Your task to perform on an android device: turn off picture-in-picture Image 0: 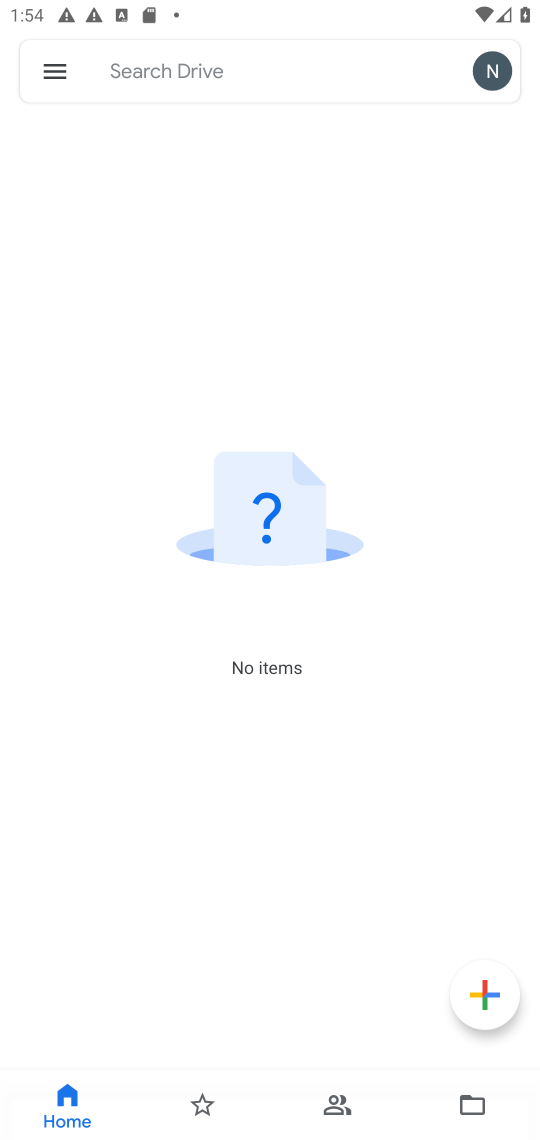
Step 0: press home button
Your task to perform on an android device: turn off picture-in-picture Image 1: 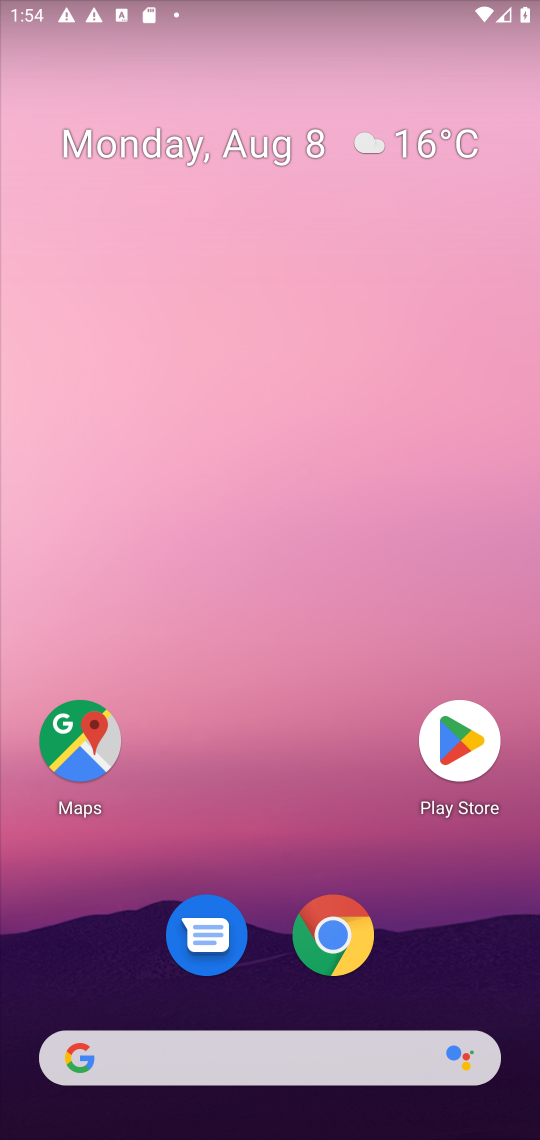
Step 1: drag from (322, 502) to (345, 44)
Your task to perform on an android device: turn off picture-in-picture Image 2: 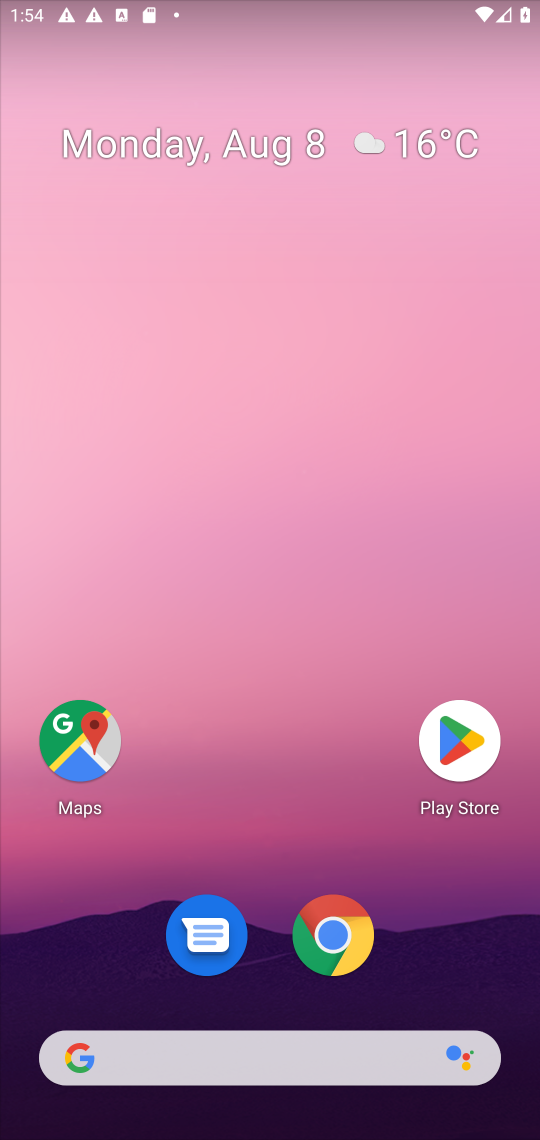
Step 2: drag from (260, 934) to (309, 31)
Your task to perform on an android device: turn off picture-in-picture Image 3: 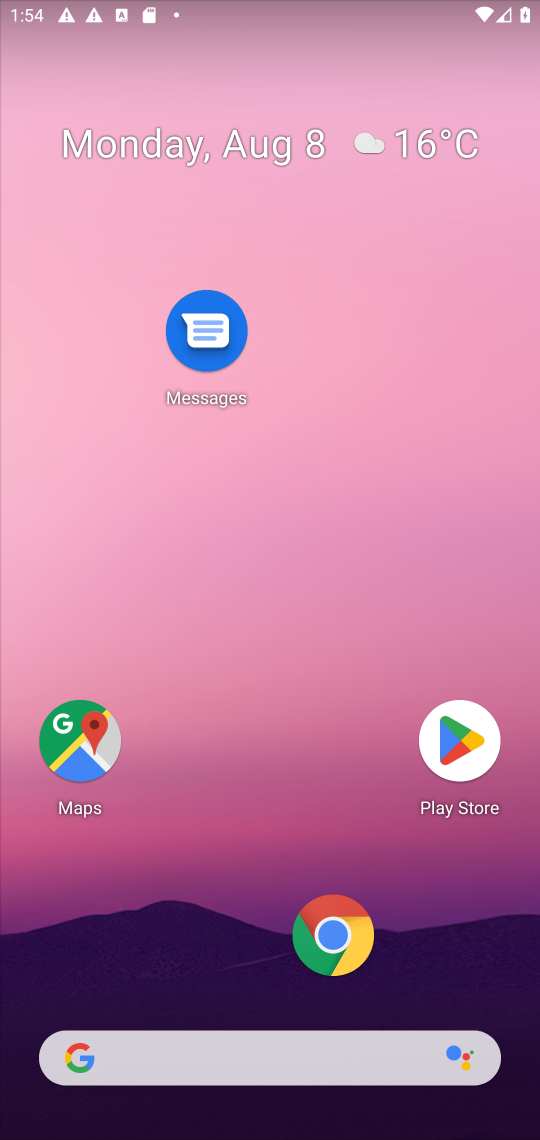
Step 3: drag from (308, 1039) to (397, 4)
Your task to perform on an android device: turn off picture-in-picture Image 4: 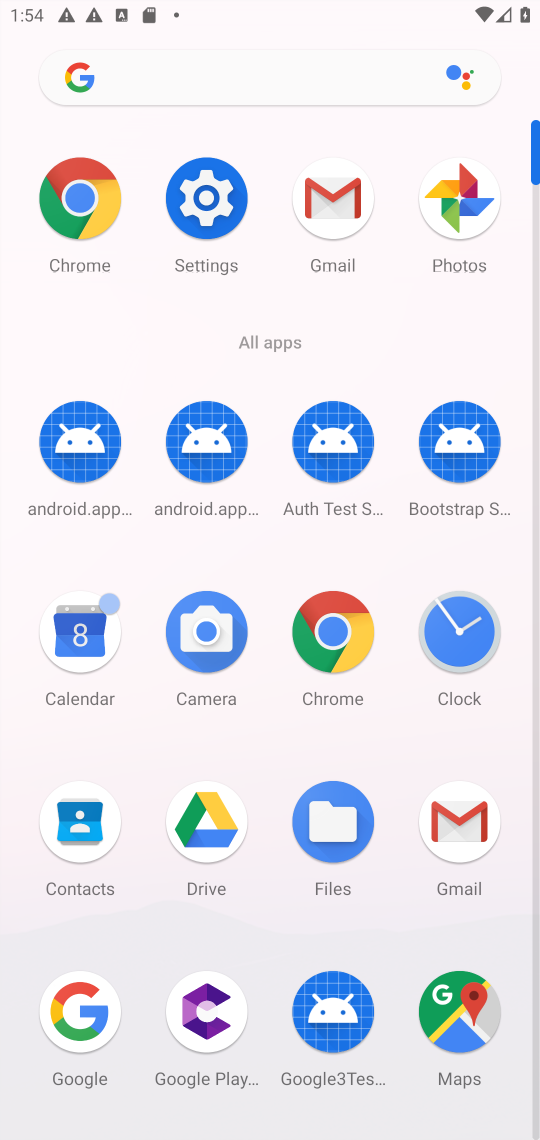
Step 4: click (216, 193)
Your task to perform on an android device: turn off picture-in-picture Image 5: 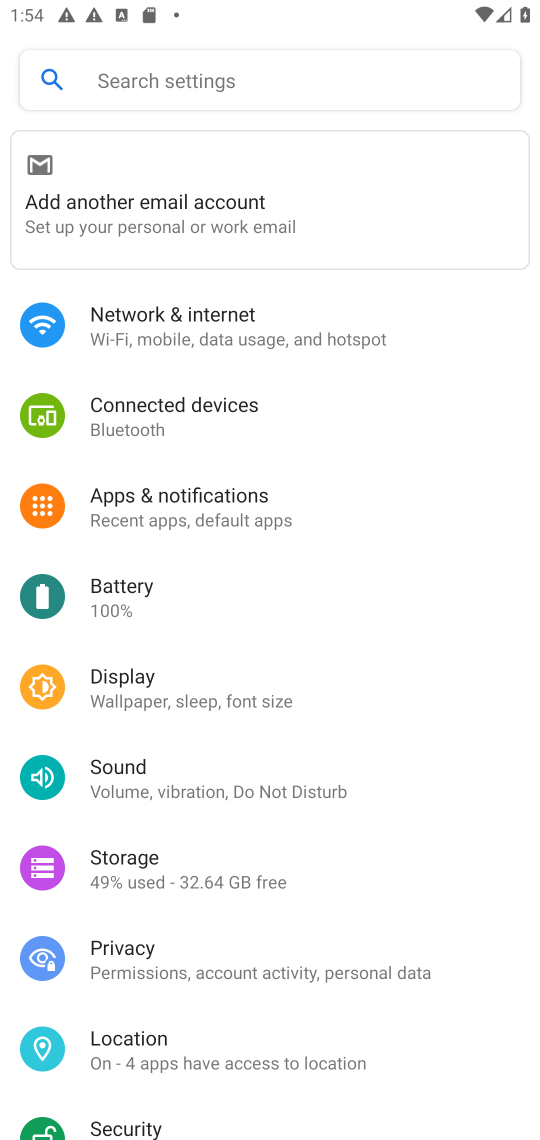
Step 5: drag from (420, 1083) to (404, 450)
Your task to perform on an android device: turn off picture-in-picture Image 6: 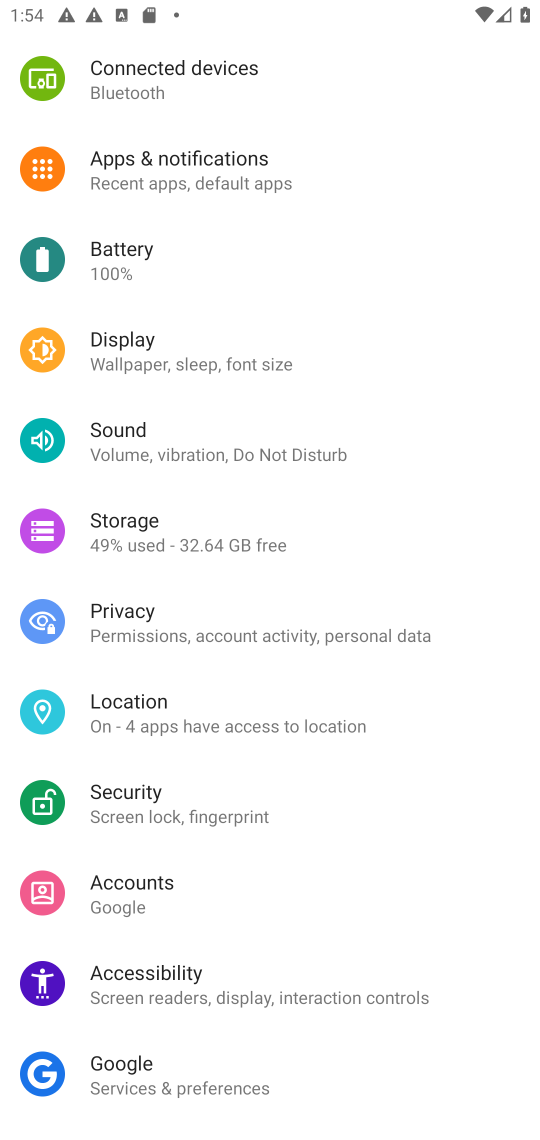
Step 6: click (211, 171)
Your task to perform on an android device: turn off picture-in-picture Image 7: 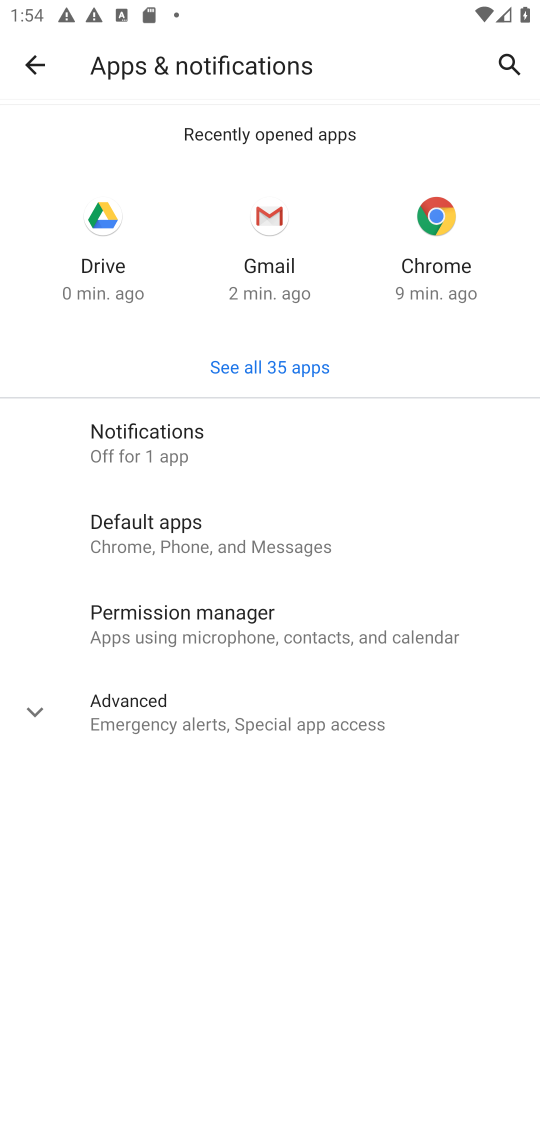
Step 7: click (215, 712)
Your task to perform on an android device: turn off picture-in-picture Image 8: 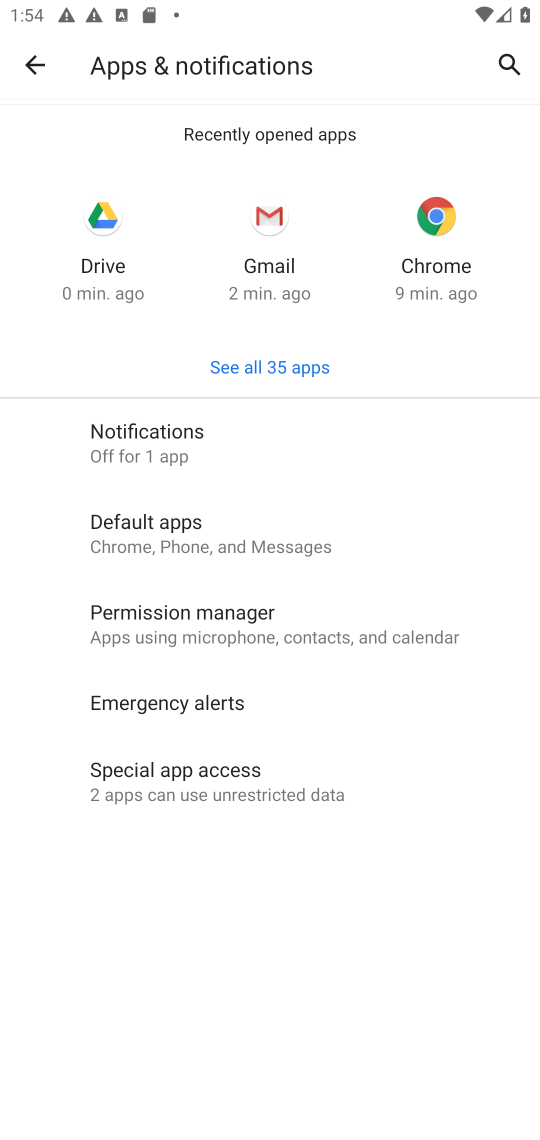
Step 8: click (164, 778)
Your task to perform on an android device: turn off picture-in-picture Image 9: 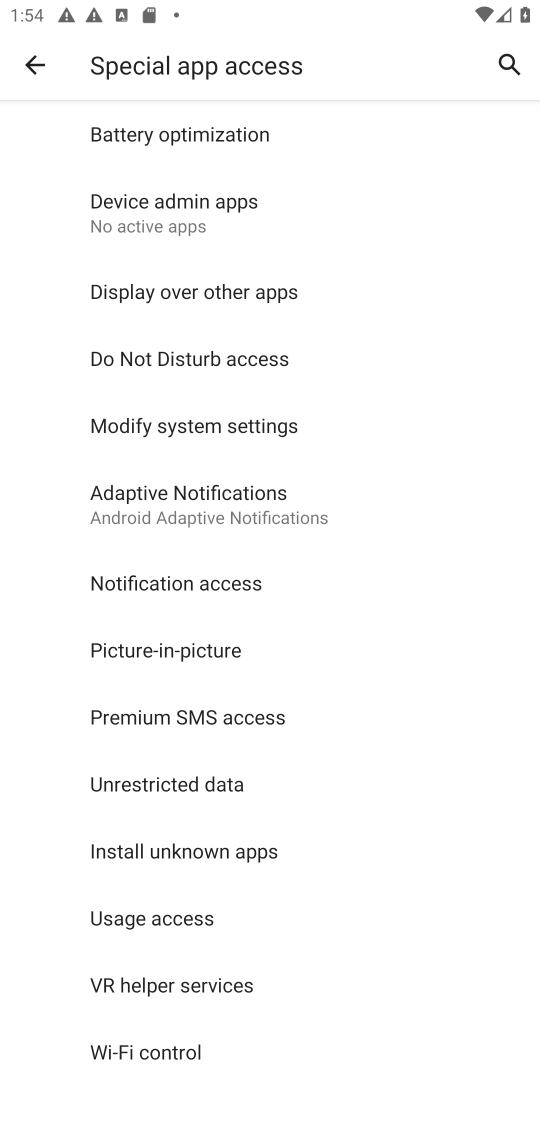
Step 9: click (173, 630)
Your task to perform on an android device: turn off picture-in-picture Image 10: 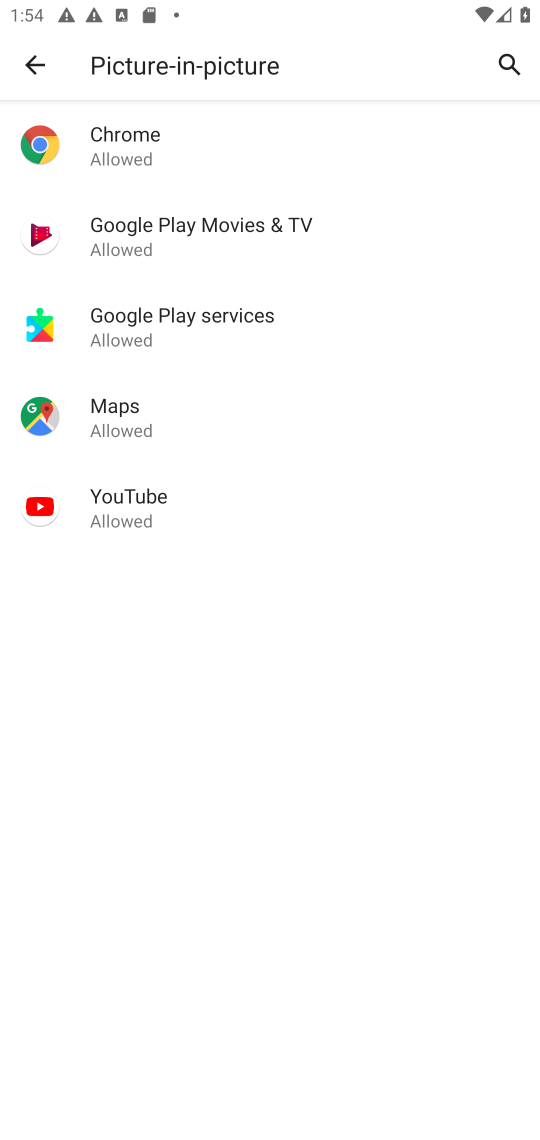
Step 10: click (305, 114)
Your task to perform on an android device: turn off picture-in-picture Image 11: 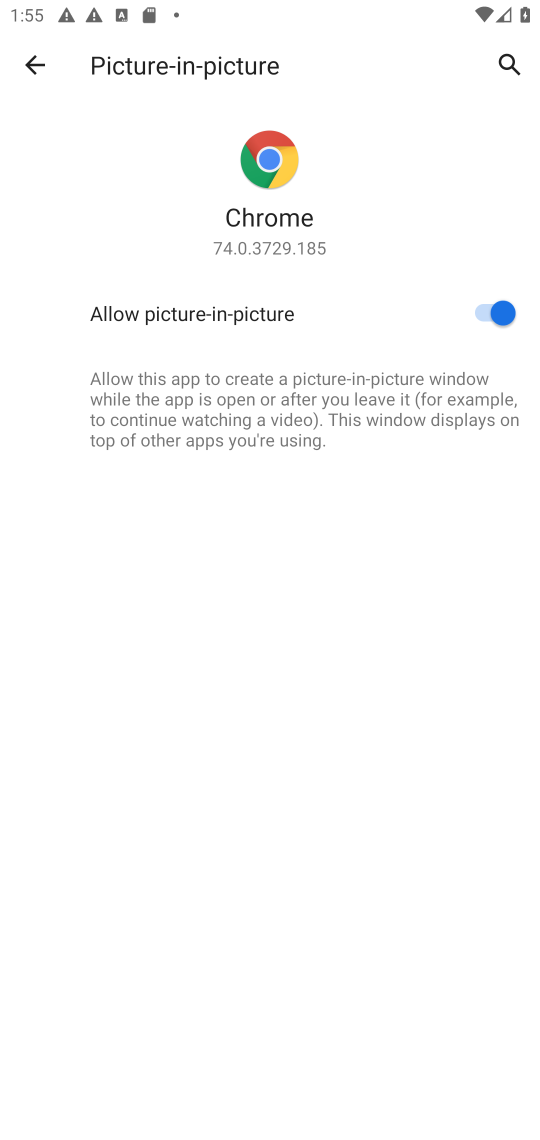
Step 11: click (482, 308)
Your task to perform on an android device: turn off picture-in-picture Image 12: 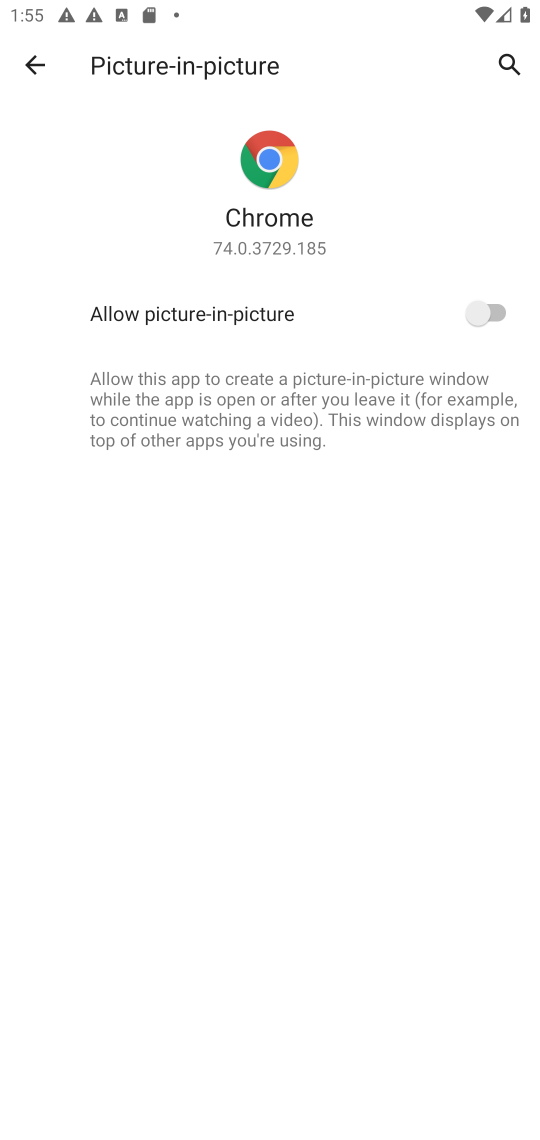
Step 12: press back button
Your task to perform on an android device: turn off picture-in-picture Image 13: 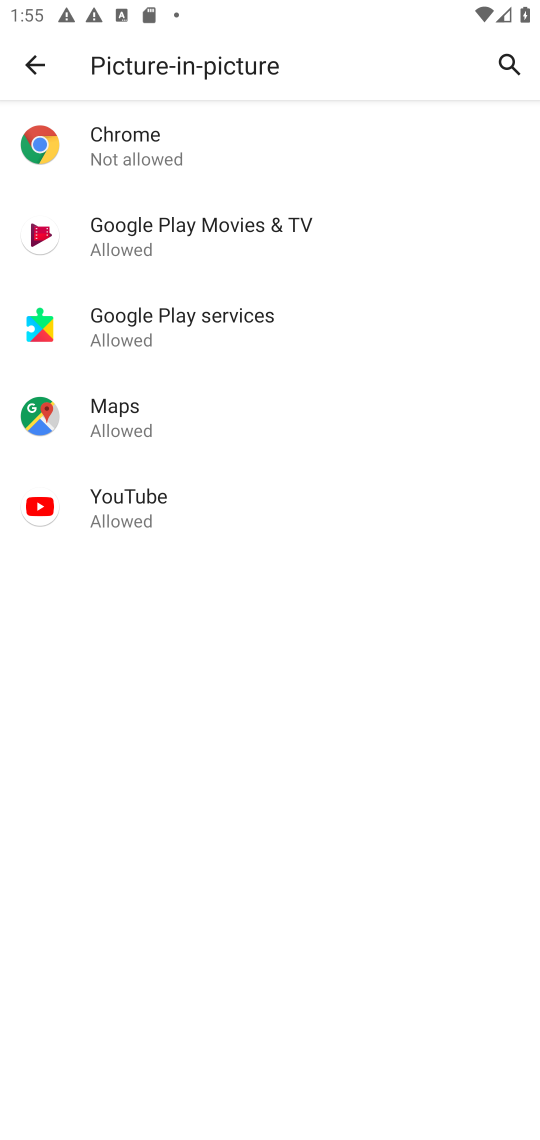
Step 13: click (335, 228)
Your task to perform on an android device: turn off picture-in-picture Image 14: 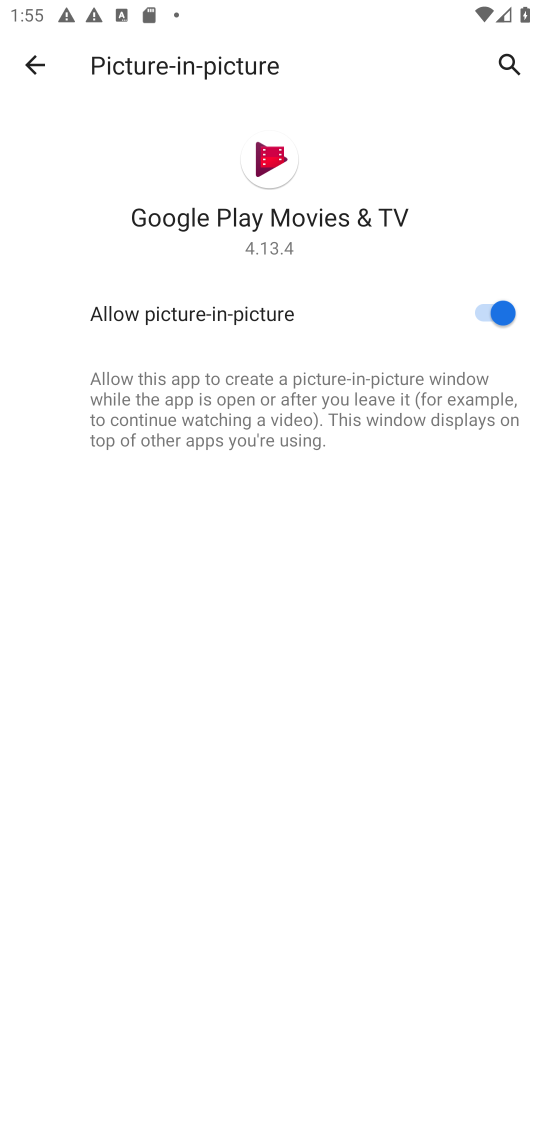
Step 14: click (481, 306)
Your task to perform on an android device: turn off picture-in-picture Image 15: 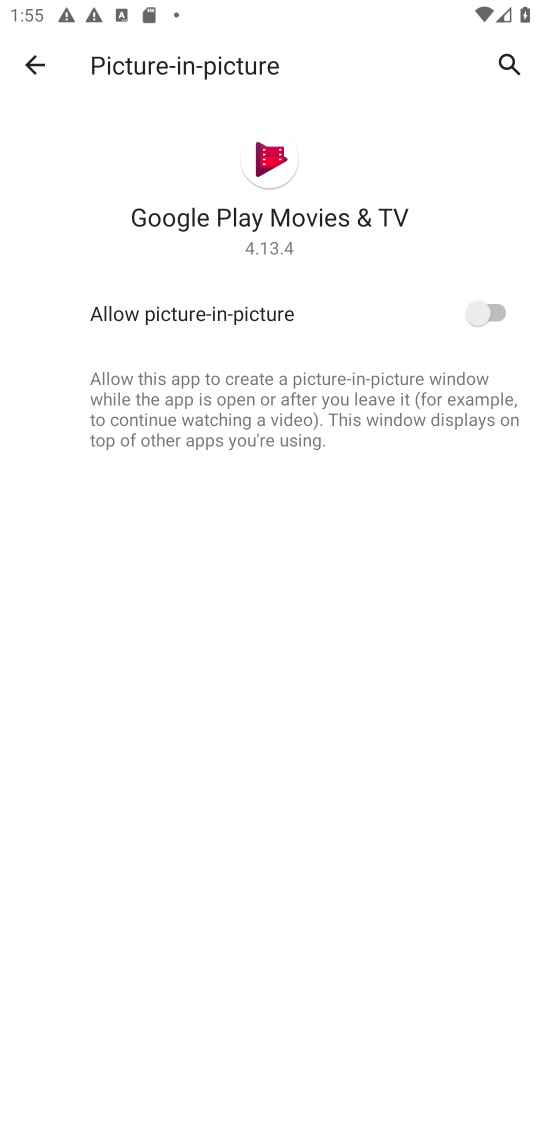
Step 15: press back button
Your task to perform on an android device: turn off picture-in-picture Image 16: 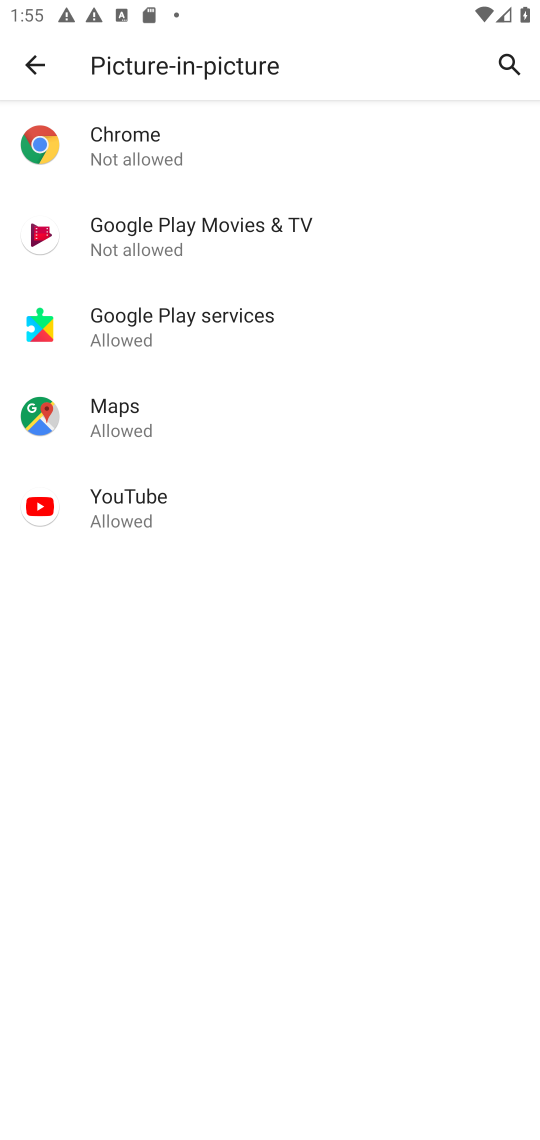
Step 16: click (313, 357)
Your task to perform on an android device: turn off picture-in-picture Image 17: 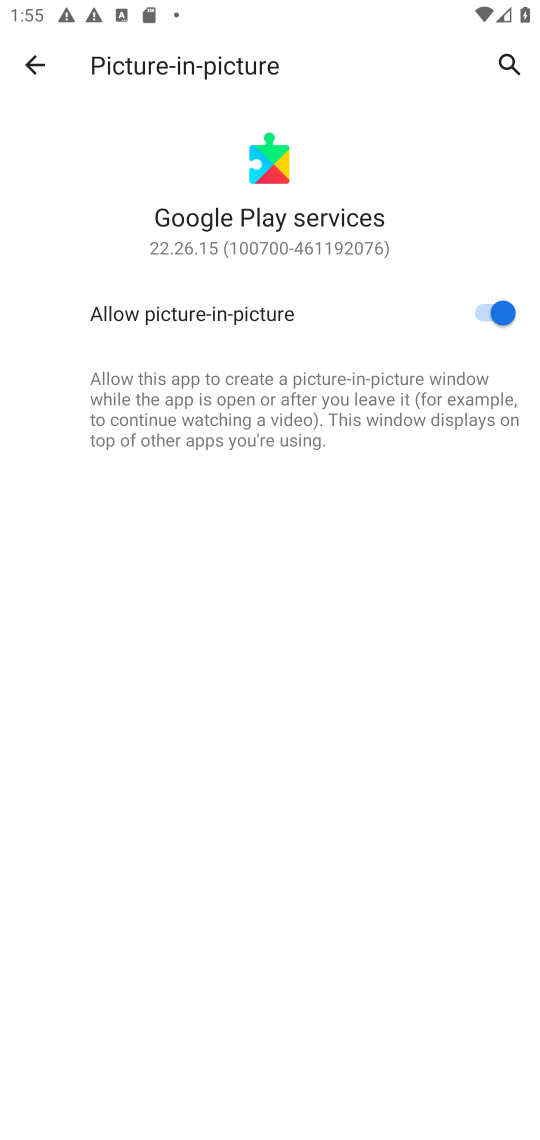
Step 17: click (492, 304)
Your task to perform on an android device: turn off picture-in-picture Image 18: 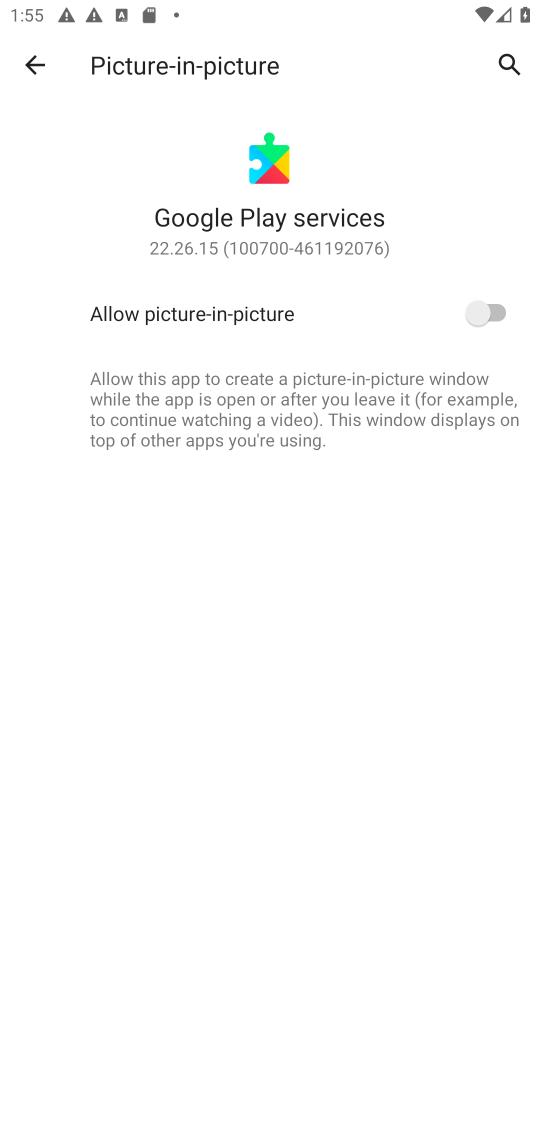
Step 18: press back button
Your task to perform on an android device: turn off picture-in-picture Image 19: 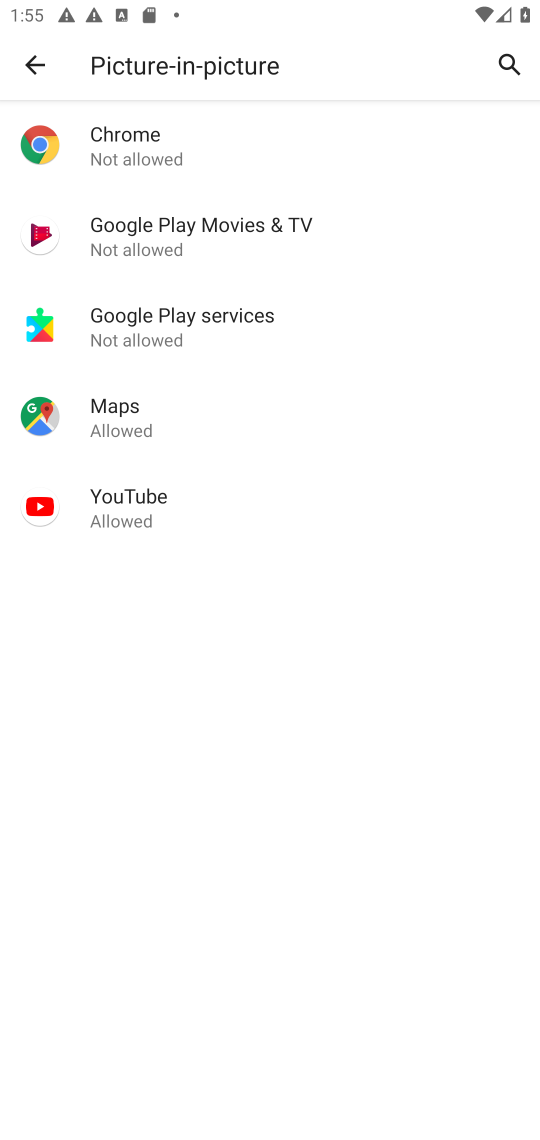
Step 19: click (134, 413)
Your task to perform on an android device: turn off picture-in-picture Image 20: 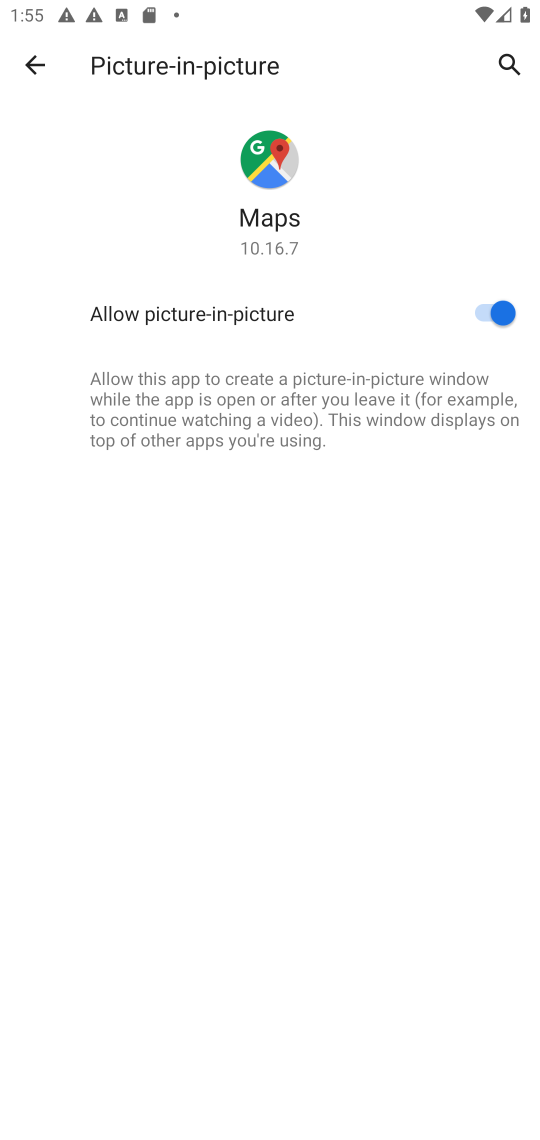
Step 20: click (486, 309)
Your task to perform on an android device: turn off picture-in-picture Image 21: 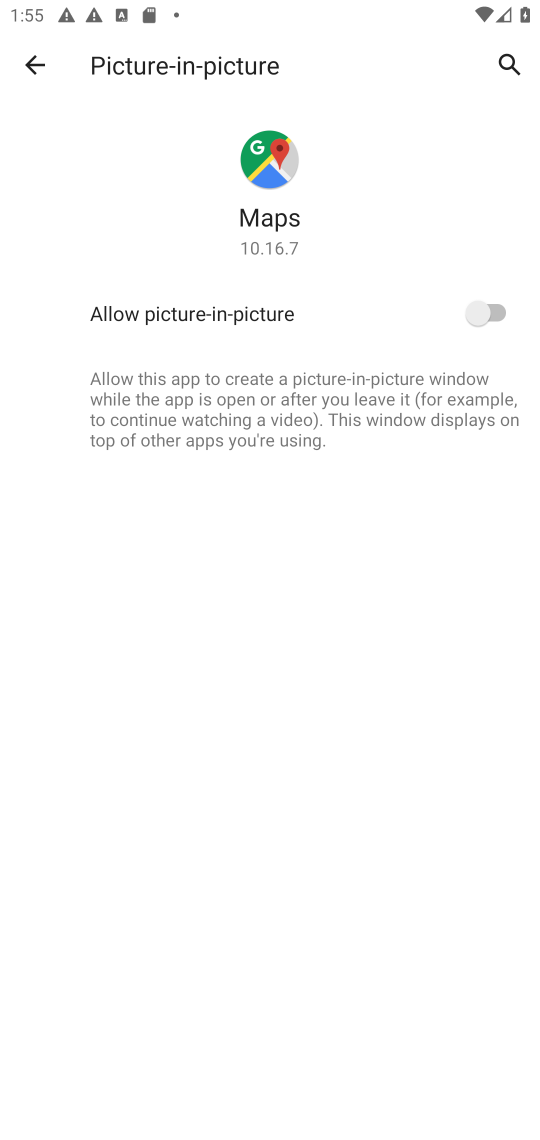
Step 21: press back button
Your task to perform on an android device: turn off picture-in-picture Image 22: 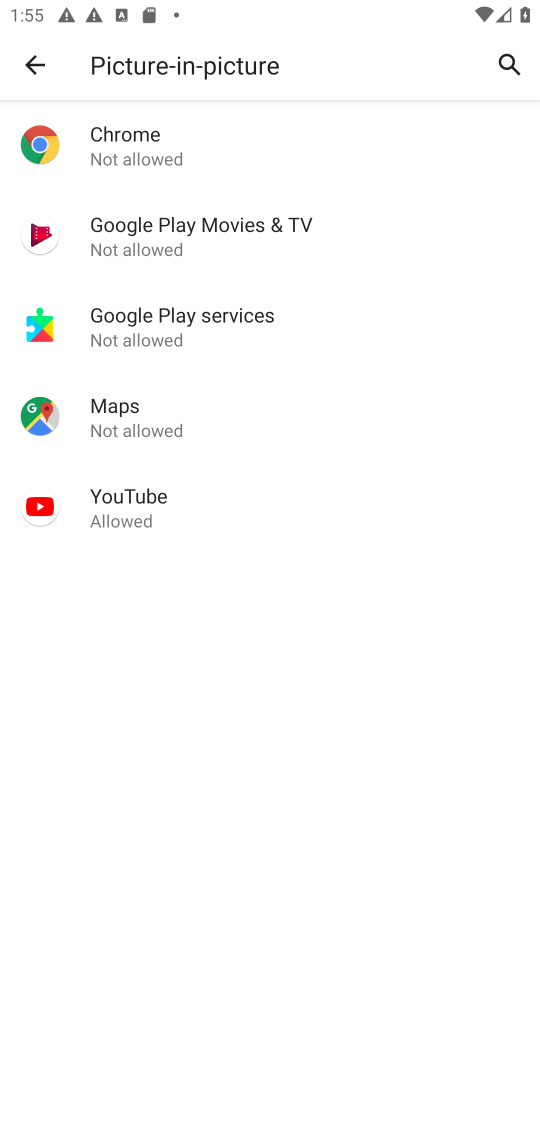
Step 22: click (220, 508)
Your task to perform on an android device: turn off picture-in-picture Image 23: 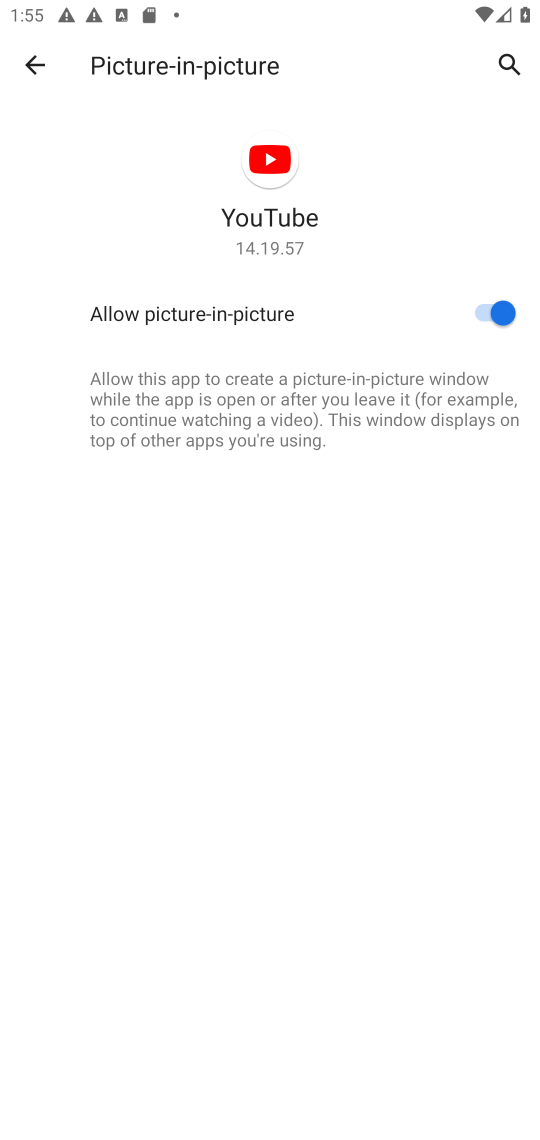
Step 23: click (496, 308)
Your task to perform on an android device: turn off picture-in-picture Image 24: 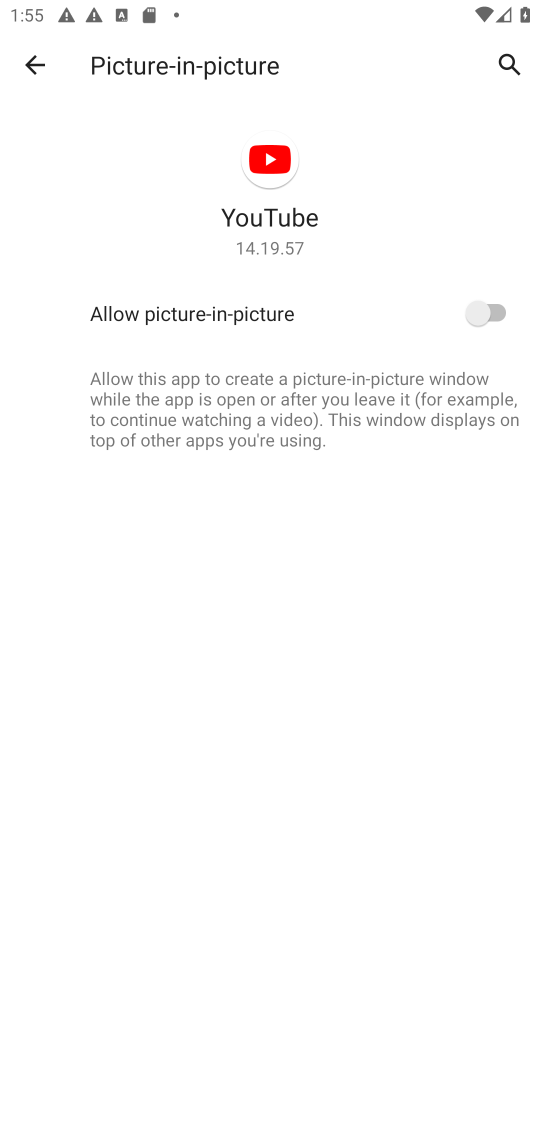
Step 24: task complete